Your task to perform on an android device: visit the assistant section in the google photos Image 0: 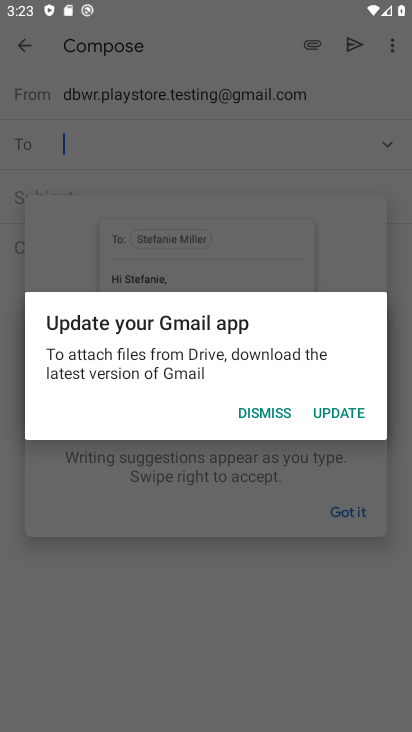
Step 0: press home button
Your task to perform on an android device: visit the assistant section in the google photos Image 1: 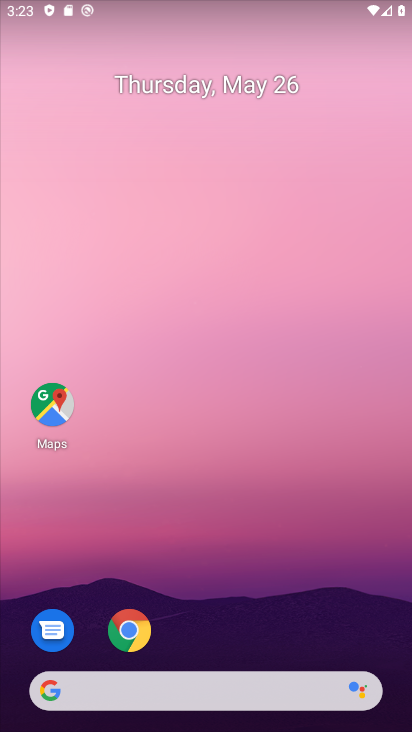
Step 1: drag from (232, 615) to (208, 138)
Your task to perform on an android device: visit the assistant section in the google photos Image 2: 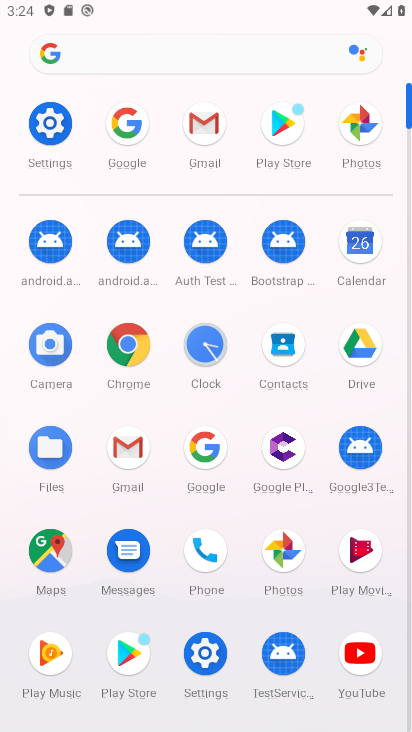
Step 2: click (363, 122)
Your task to perform on an android device: visit the assistant section in the google photos Image 3: 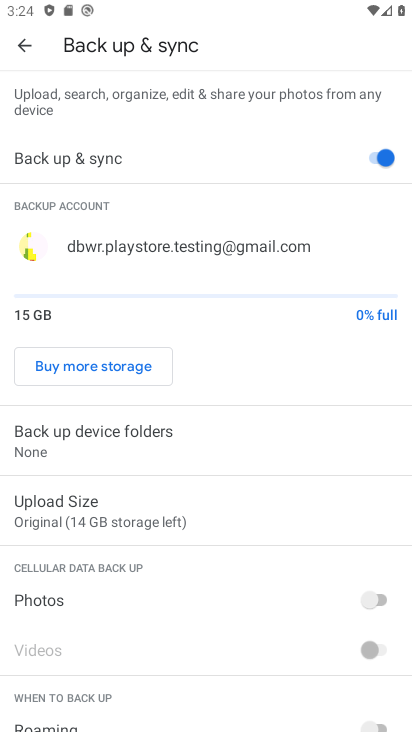
Step 3: click (25, 46)
Your task to perform on an android device: visit the assistant section in the google photos Image 4: 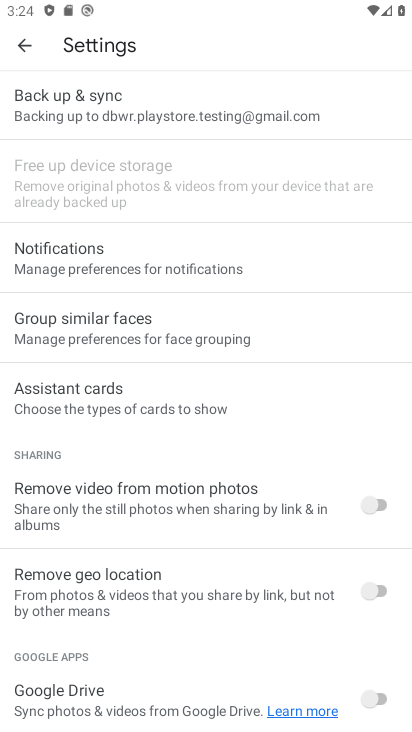
Step 4: click (25, 46)
Your task to perform on an android device: visit the assistant section in the google photos Image 5: 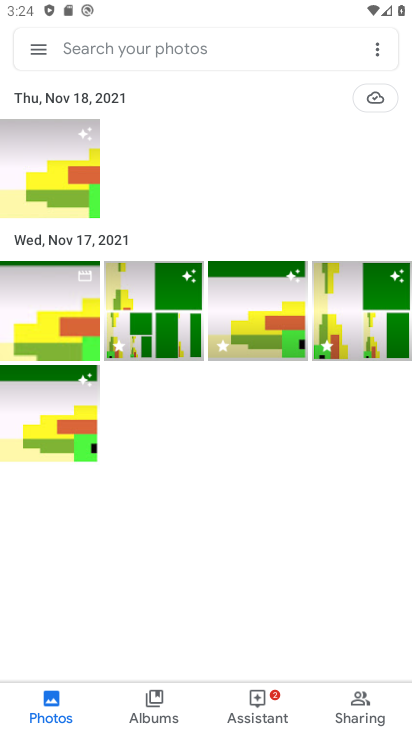
Step 5: click (256, 699)
Your task to perform on an android device: visit the assistant section in the google photos Image 6: 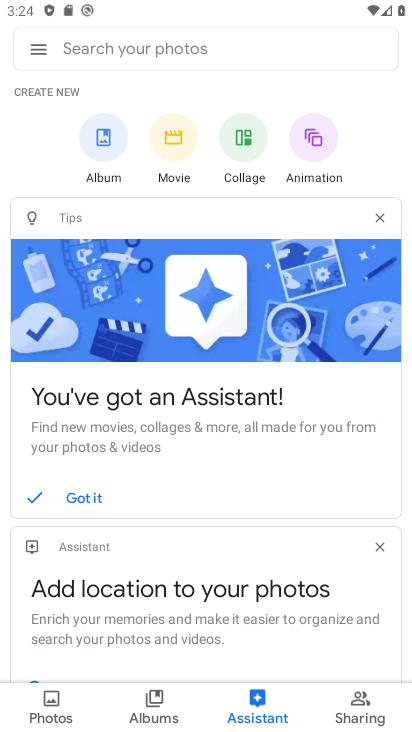
Step 6: task complete